Your task to perform on an android device: Open calendar and show me the first week of next month Image 0: 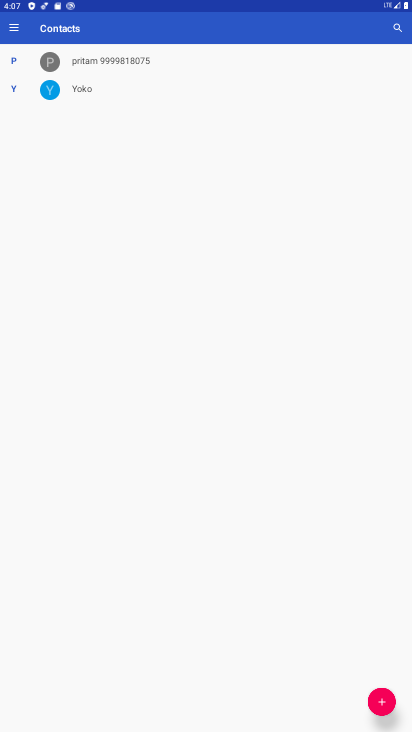
Step 0: press home button
Your task to perform on an android device: Open calendar and show me the first week of next month Image 1: 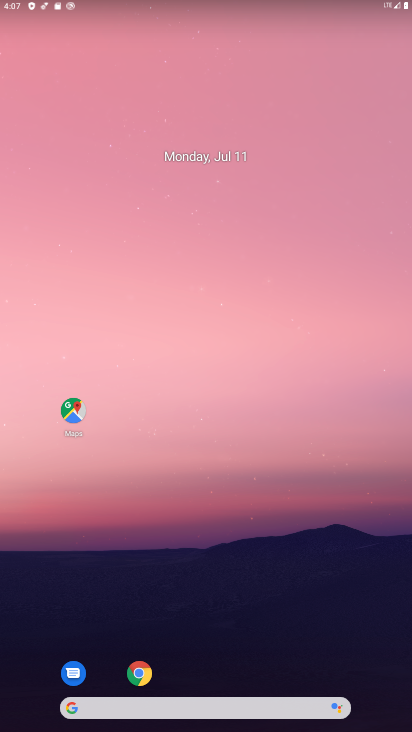
Step 1: drag from (279, 600) to (302, 25)
Your task to perform on an android device: Open calendar and show me the first week of next month Image 2: 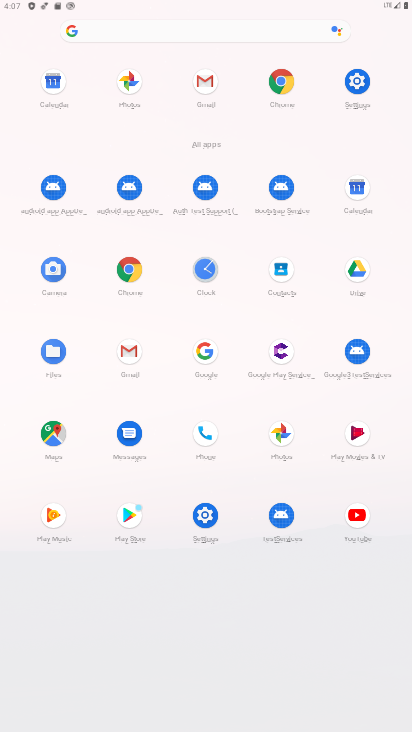
Step 2: click (359, 186)
Your task to perform on an android device: Open calendar and show me the first week of next month Image 3: 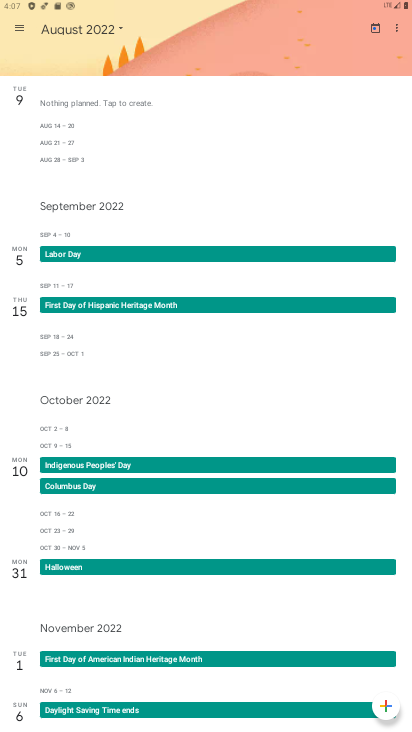
Step 3: click (97, 28)
Your task to perform on an android device: Open calendar and show me the first week of next month Image 4: 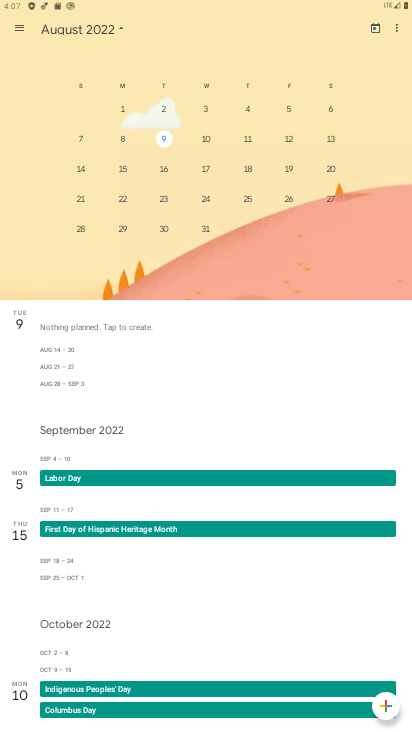
Step 4: click (162, 105)
Your task to perform on an android device: Open calendar and show me the first week of next month Image 5: 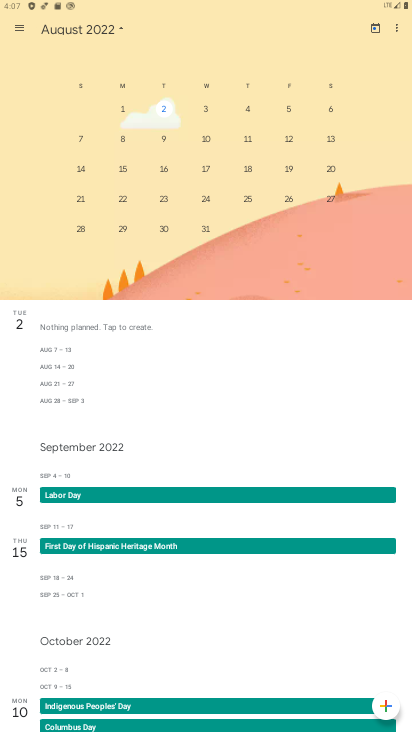
Step 5: drag from (169, 422) to (200, 141)
Your task to perform on an android device: Open calendar and show me the first week of next month Image 6: 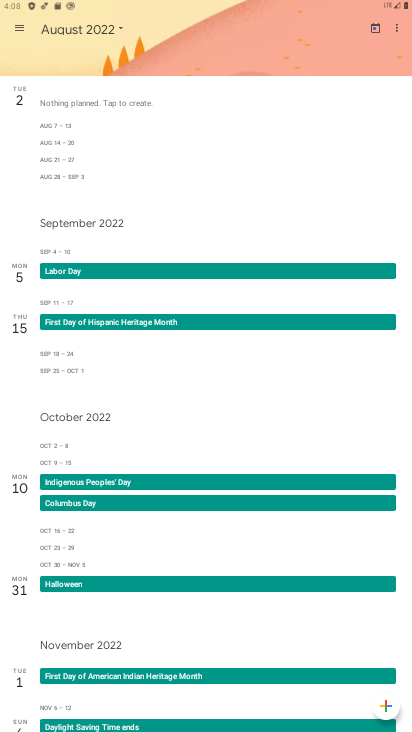
Step 6: click (22, 25)
Your task to perform on an android device: Open calendar and show me the first week of next month Image 7: 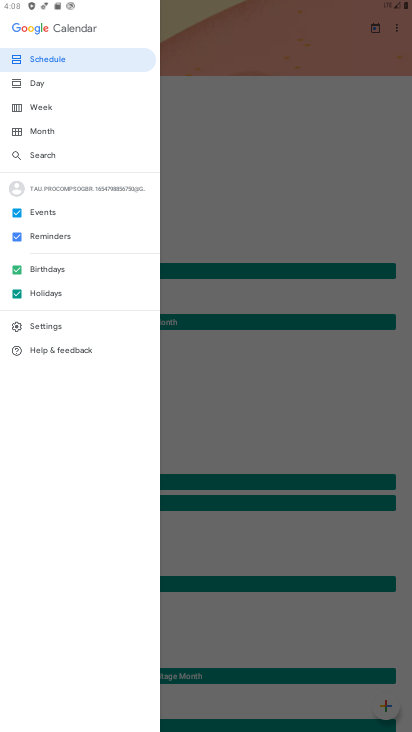
Step 7: click (38, 100)
Your task to perform on an android device: Open calendar and show me the first week of next month Image 8: 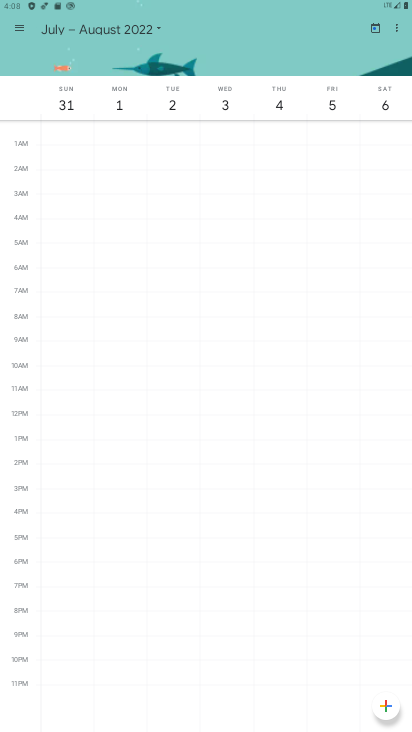
Step 8: task complete